Your task to perform on an android device: uninstall "eBay: The shopping marketplace" Image 0: 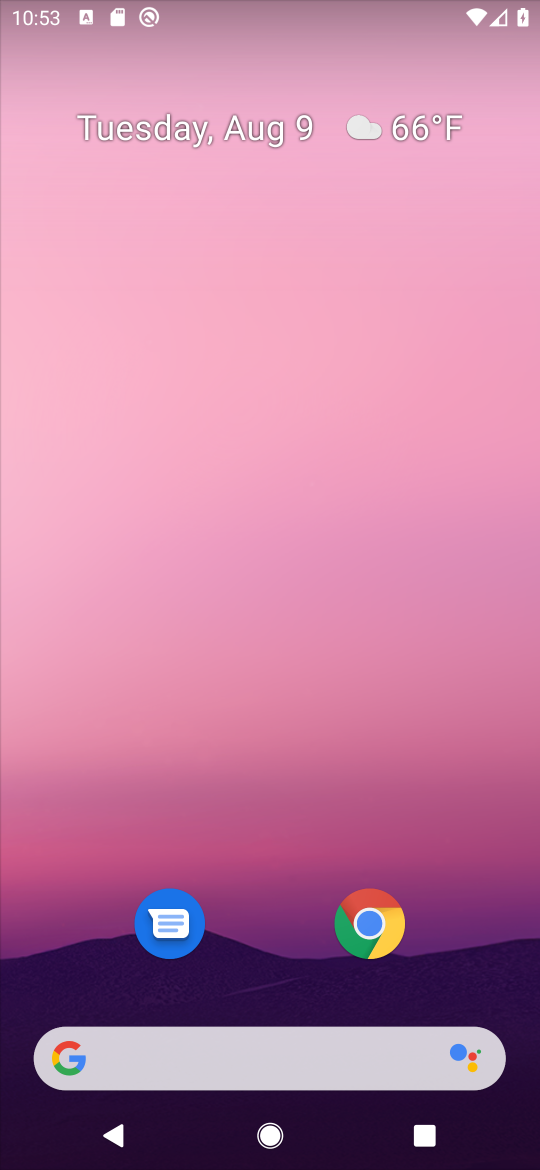
Step 0: press home button
Your task to perform on an android device: uninstall "eBay: The shopping marketplace" Image 1: 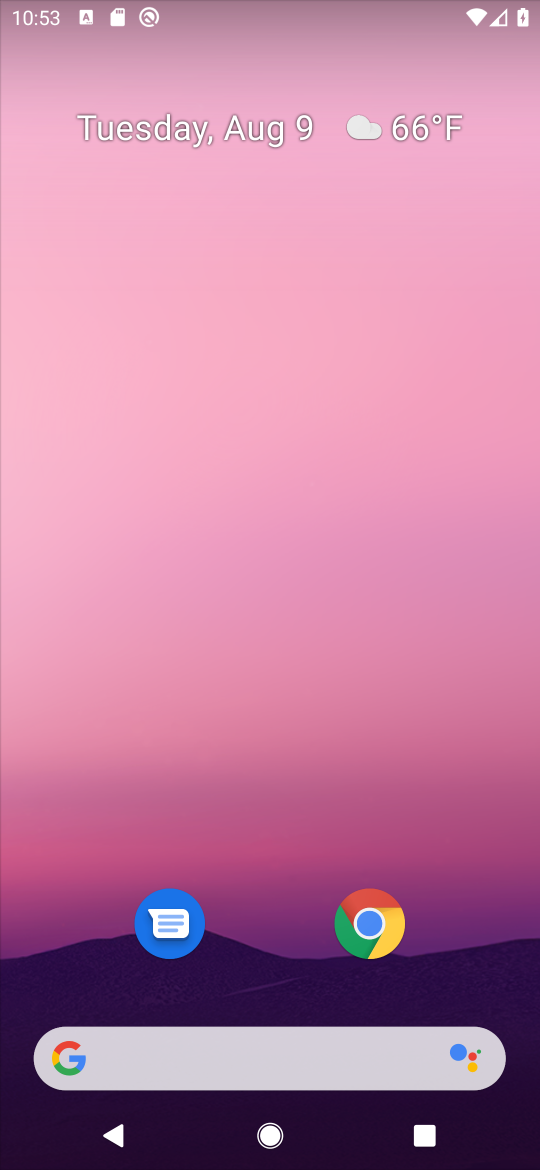
Step 1: drag from (255, 995) to (316, 77)
Your task to perform on an android device: uninstall "eBay: The shopping marketplace" Image 2: 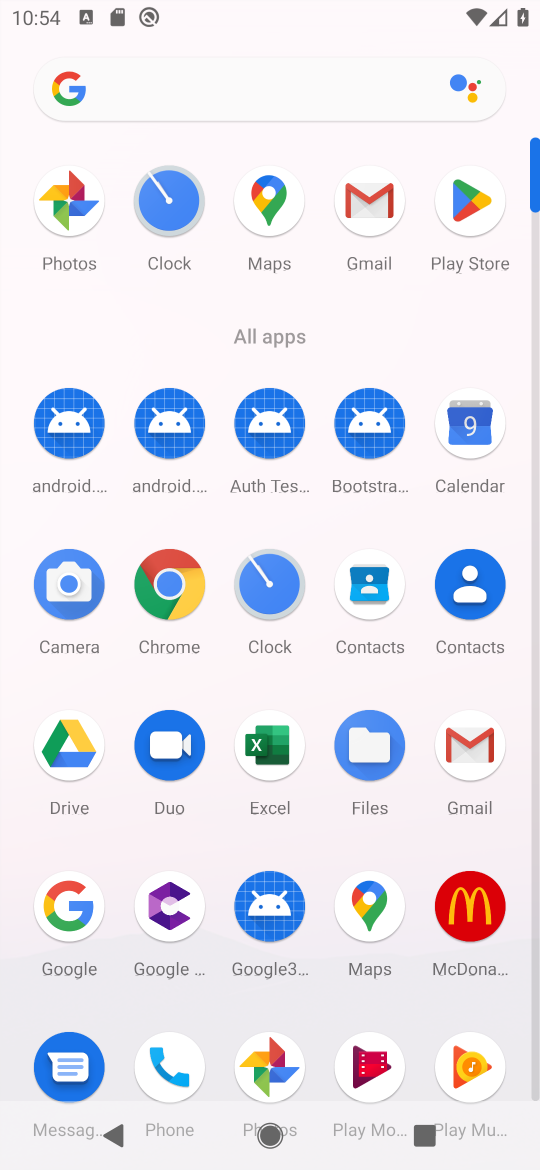
Step 2: click (462, 200)
Your task to perform on an android device: uninstall "eBay: The shopping marketplace" Image 3: 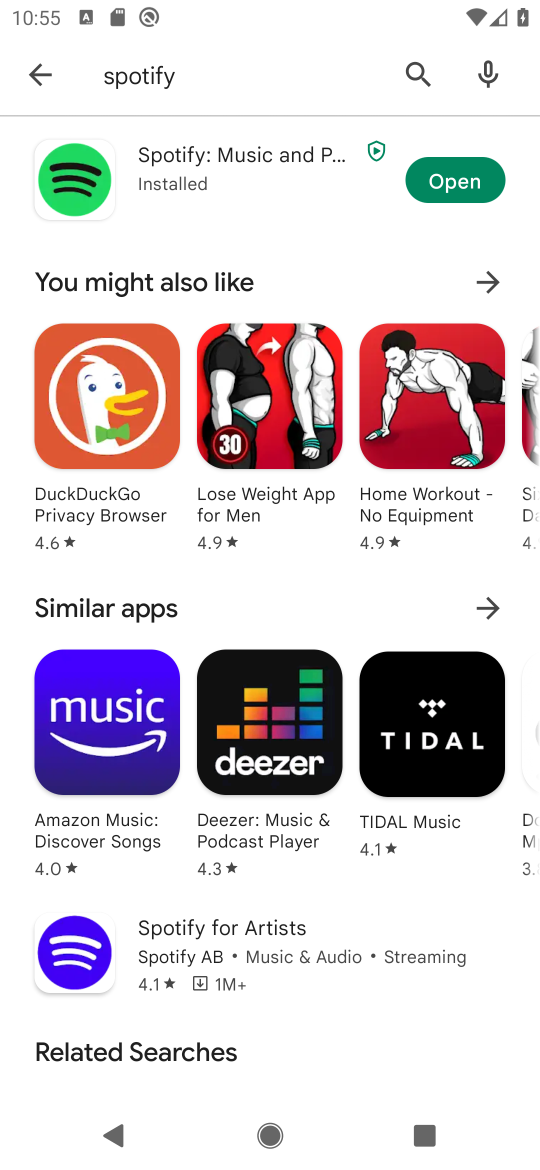
Step 3: click (419, 66)
Your task to perform on an android device: uninstall "eBay: The shopping marketplace" Image 4: 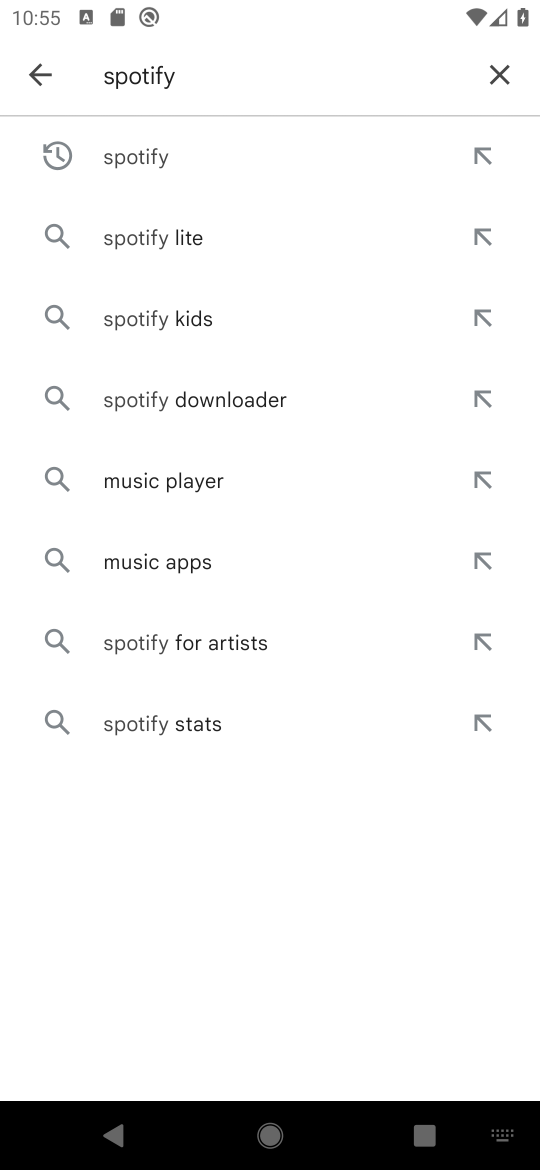
Step 4: click (497, 72)
Your task to perform on an android device: uninstall "eBay: The shopping marketplace" Image 5: 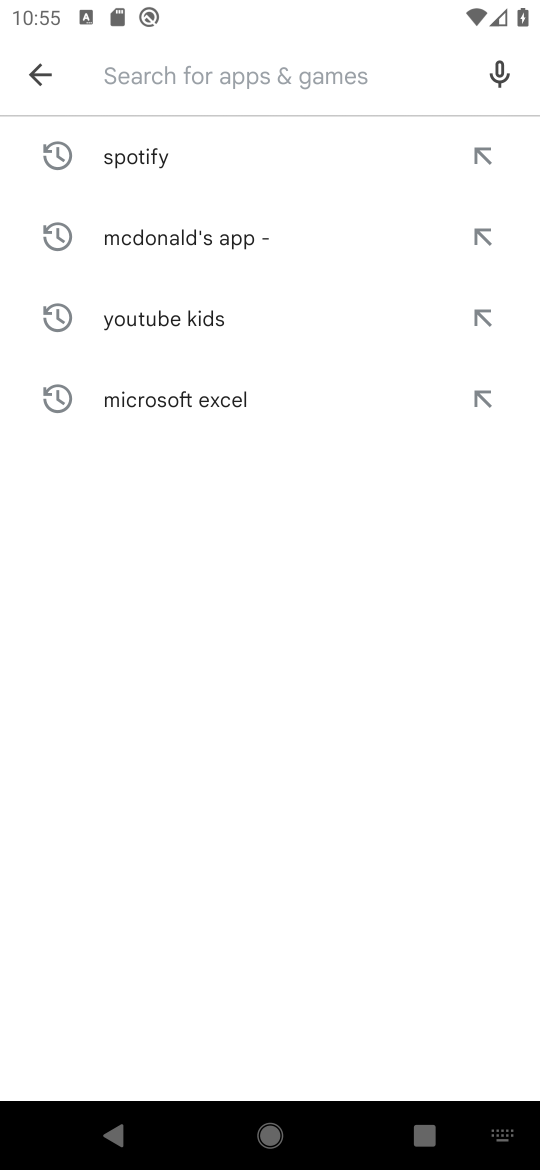
Step 5: type "eBay: The shopping marketplace"
Your task to perform on an android device: uninstall "eBay: The shopping marketplace" Image 6: 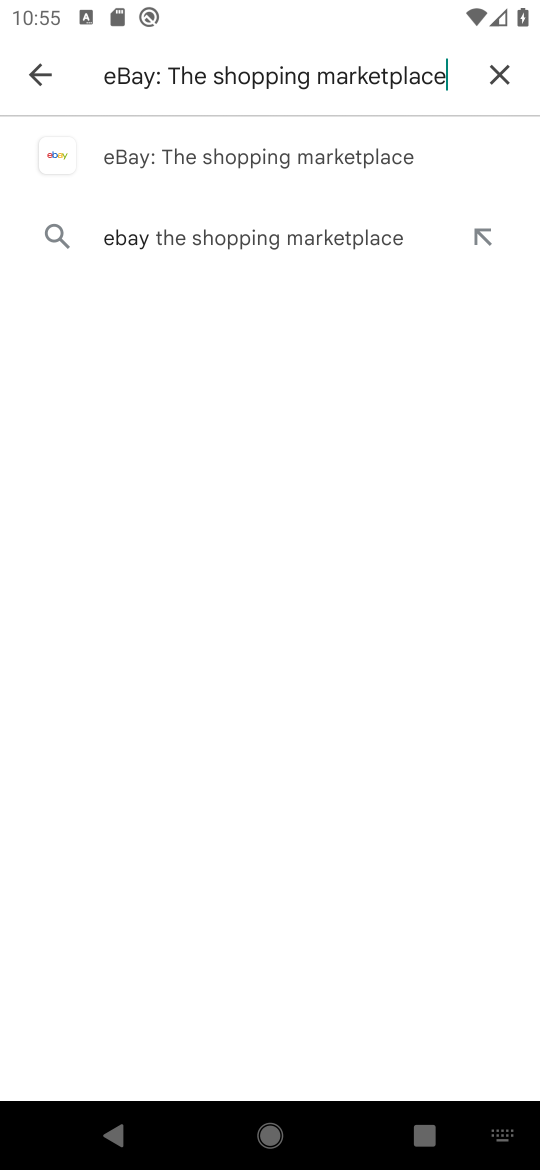
Step 6: click (183, 160)
Your task to perform on an android device: uninstall "eBay: The shopping marketplace" Image 7: 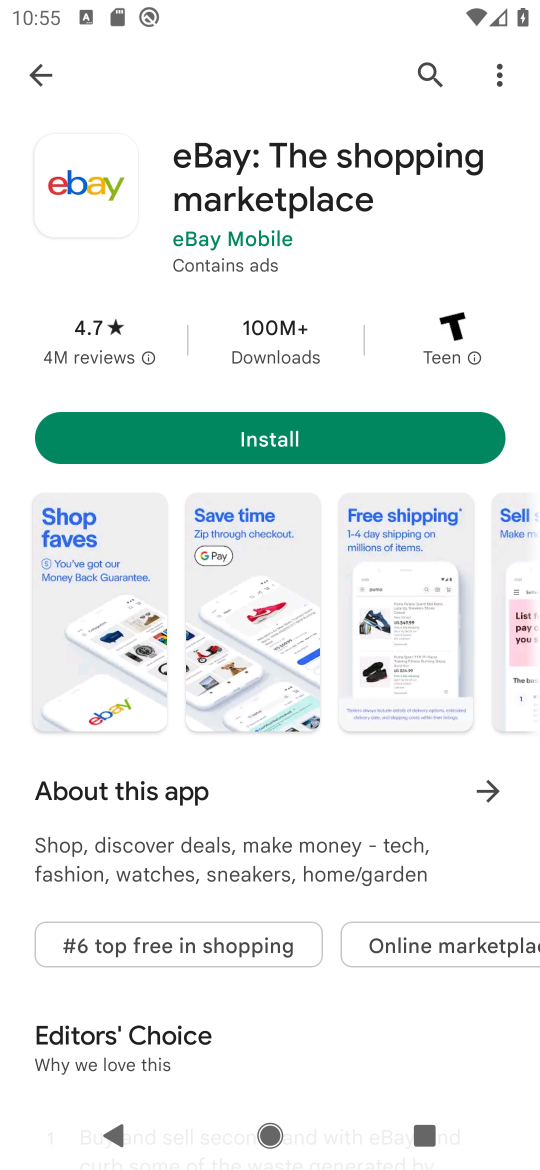
Step 7: task complete